Your task to perform on an android device: delete browsing data in the chrome app Image 0: 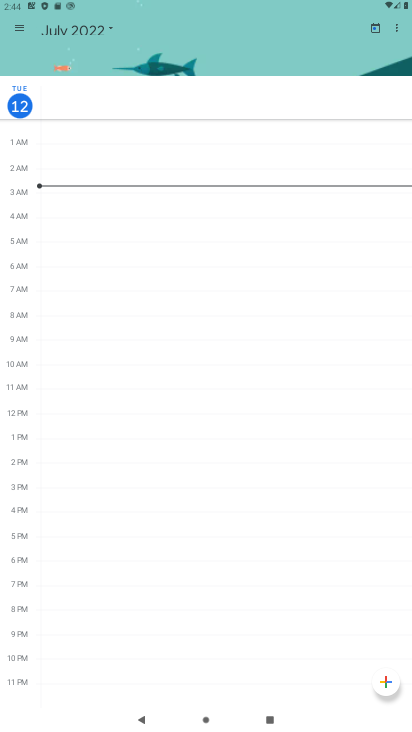
Step 0: press home button
Your task to perform on an android device: delete browsing data in the chrome app Image 1: 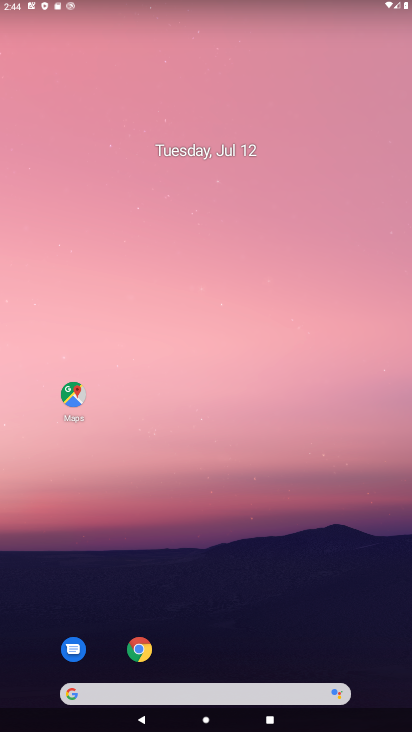
Step 1: click (141, 643)
Your task to perform on an android device: delete browsing data in the chrome app Image 2: 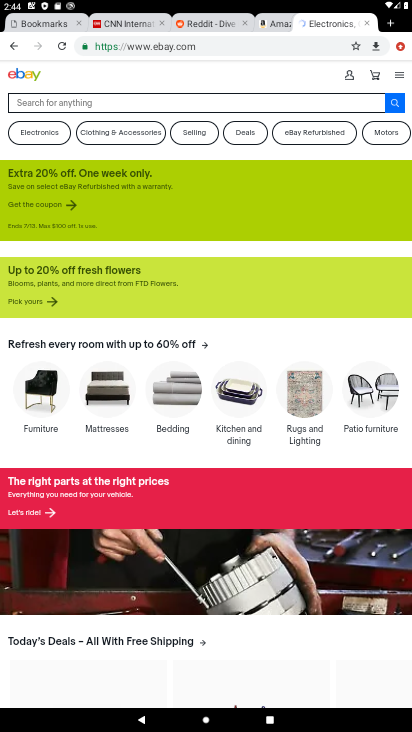
Step 2: click (402, 50)
Your task to perform on an android device: delete browsing data in the chrome app Image 3: 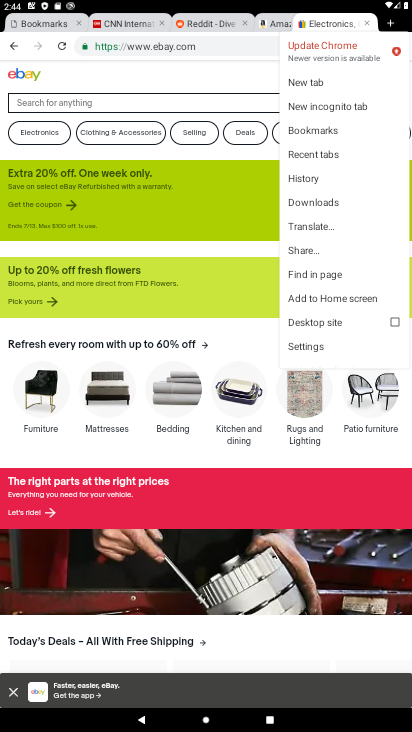
Step 3: click (311, 347)
Your task to perform on an android device: delete browsing data in the chrome app Image 4: 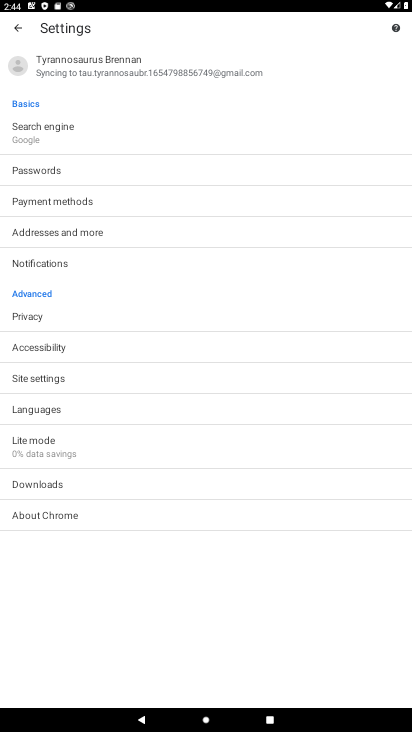
Step 4: click (9, 32)
Your task to perform on an android device: delete browsing data in the chrome app Image 5: 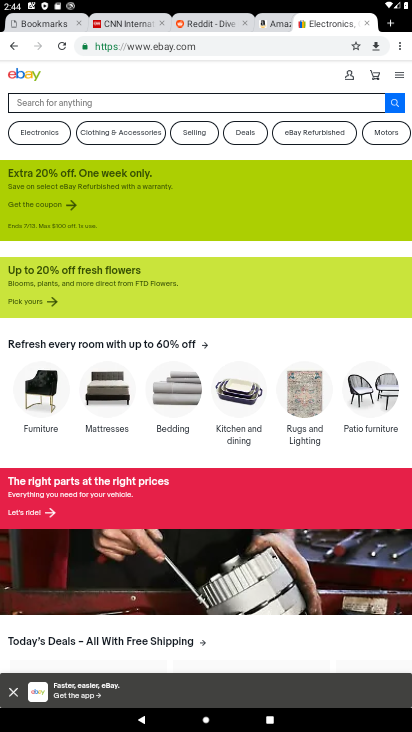
Step 5: click (402, 49)
Your task to perform on an android device: delete browsing data in the chrome app Image 6: 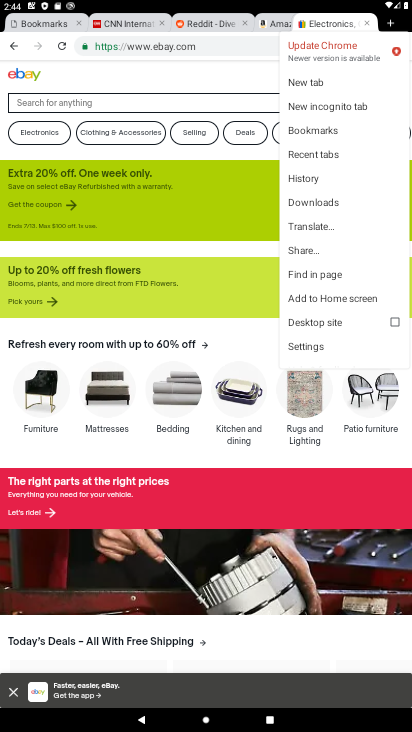
Step 6: click (344, 177)
Your task to perform on an android device: delete browsing data in the chrome app Image 7: 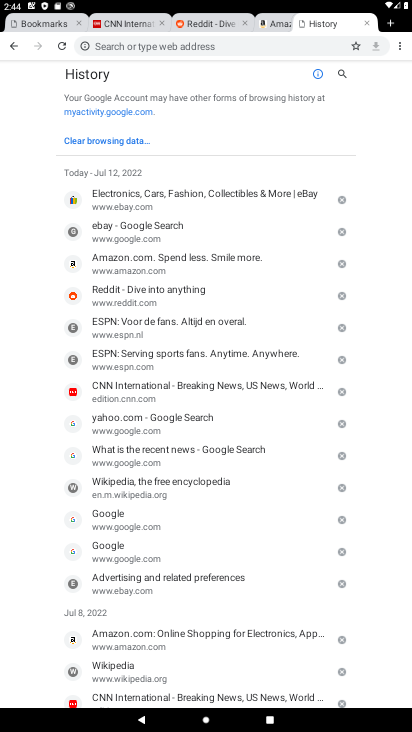
Step 7: click (98, 143)
Your task to perform on an android device: delete browsing data in the chrome app Image 8: 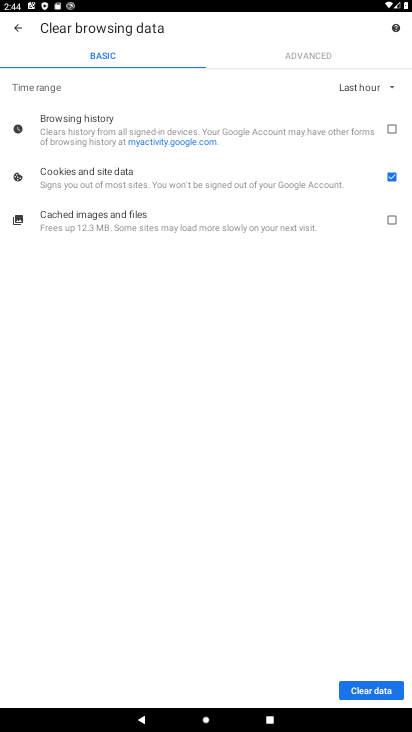
Step 8: click (359, 681)
Your task to perform on an android device: delete browsing data in the chrome app Image 9: 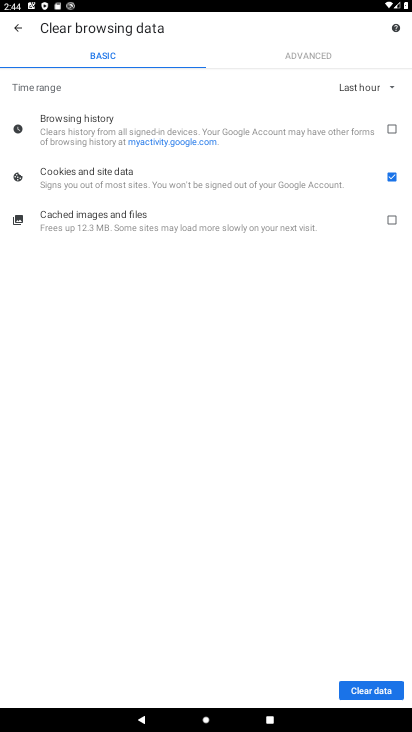
Step 9: task complete